Your task to perform on an android device: Find coffee shops on Maps Image 0: 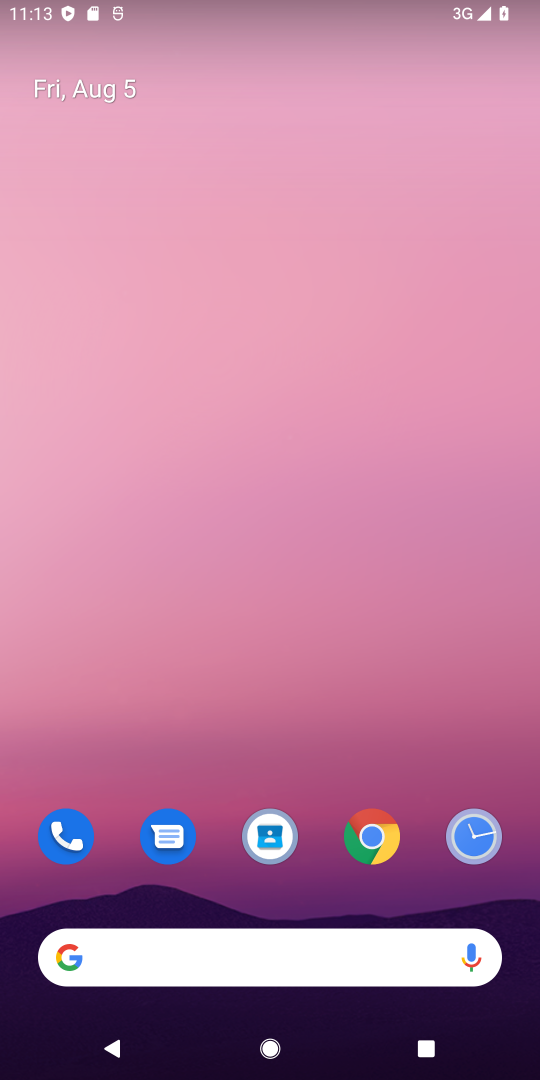
Step 0: drag from (326, 780) to (358, 150)
Your task to perform on an android device: Find coffee shops on Maps Image 1: 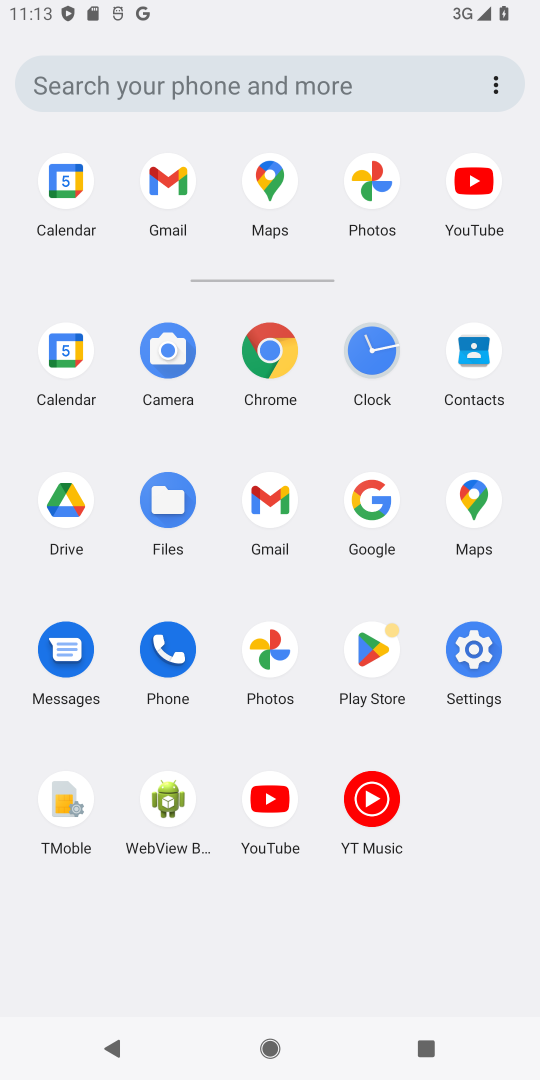
Step 1: click (470, 509)
Your task to perform on an android device: Find coffee shops on Maps Image 2: 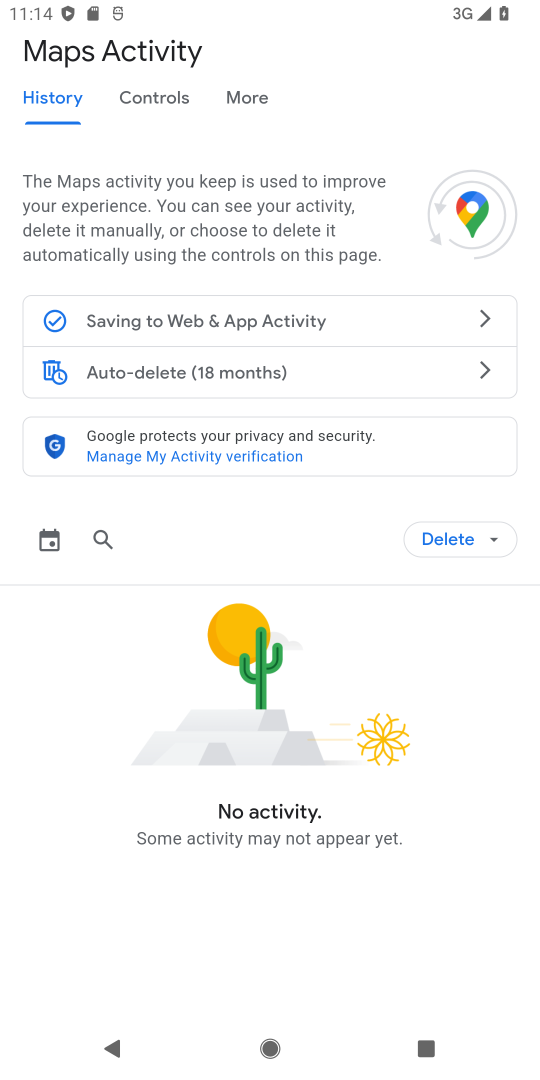
Step 2: press back button
Your task to perform on an android device: Find coffee shops on Maps Image 3: 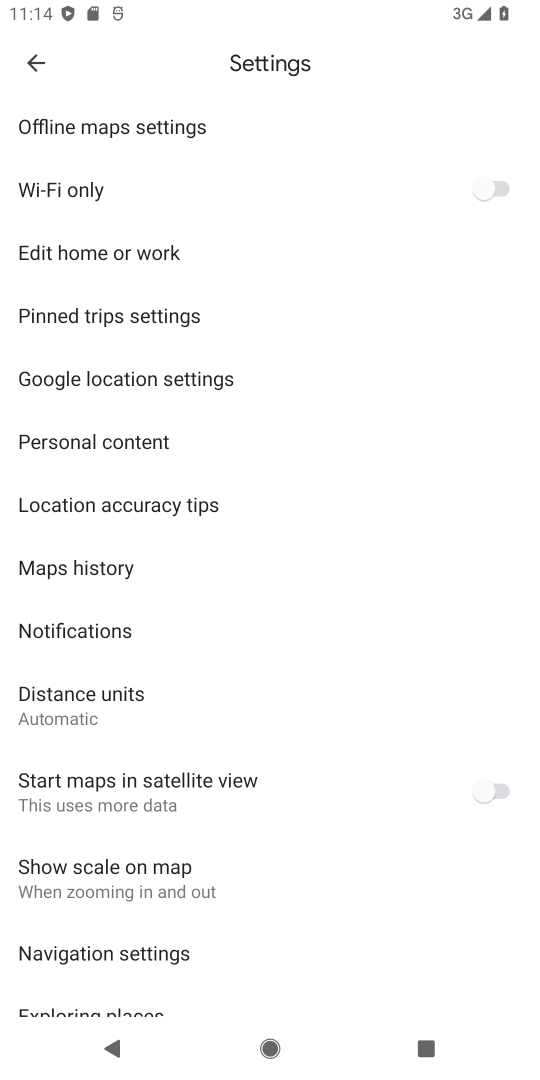
Step 3: press back button
Your task to perform on an android device: Find coffee shops on Maps Image 4: 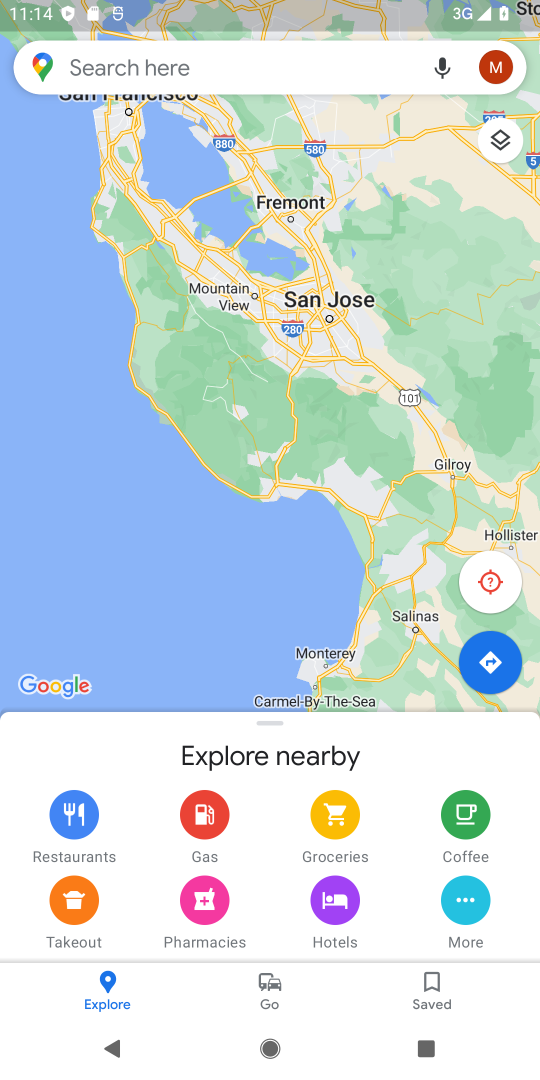
Step 4: click (350, 76)
Your task to perform on an android device: Find coffee shops on Maps Image 5: 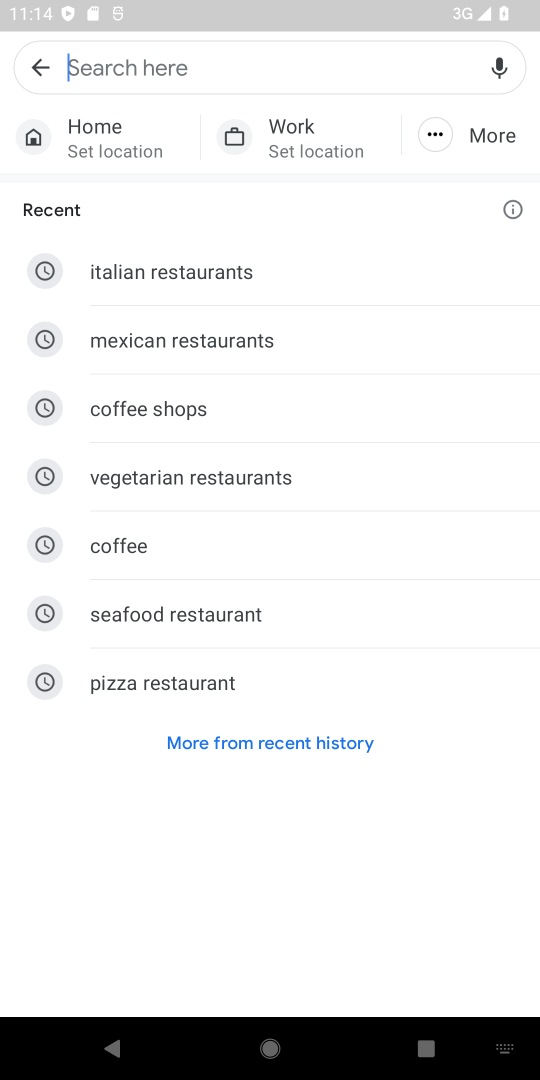
Step 5: type "coffee shops"
Your task to perform on an android device: Find coffee shops on Maps Image 6: 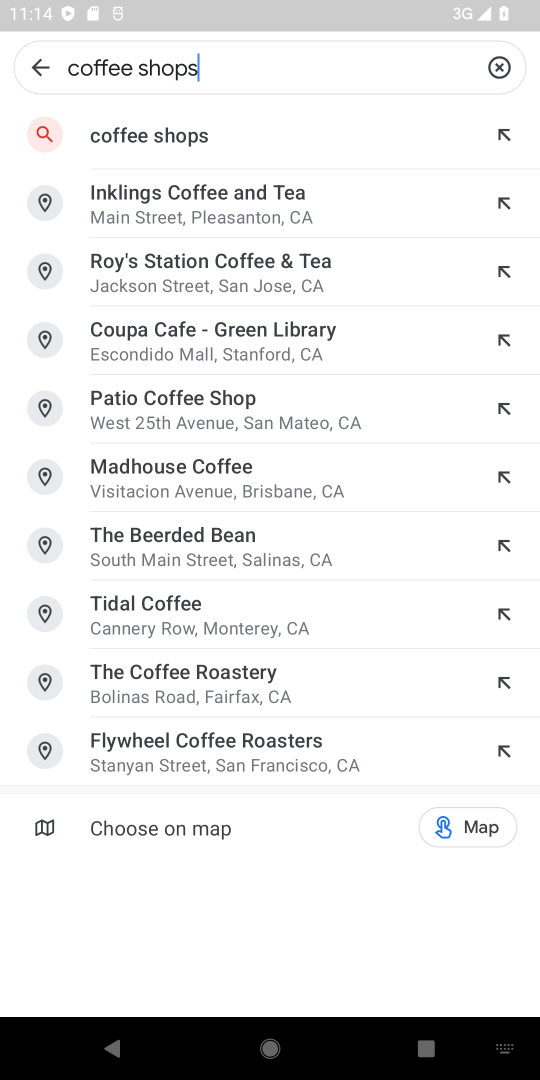
Step 6: click (141, 123)
Your task to perform on an android device: Find coffee shops on Maps Image 7: 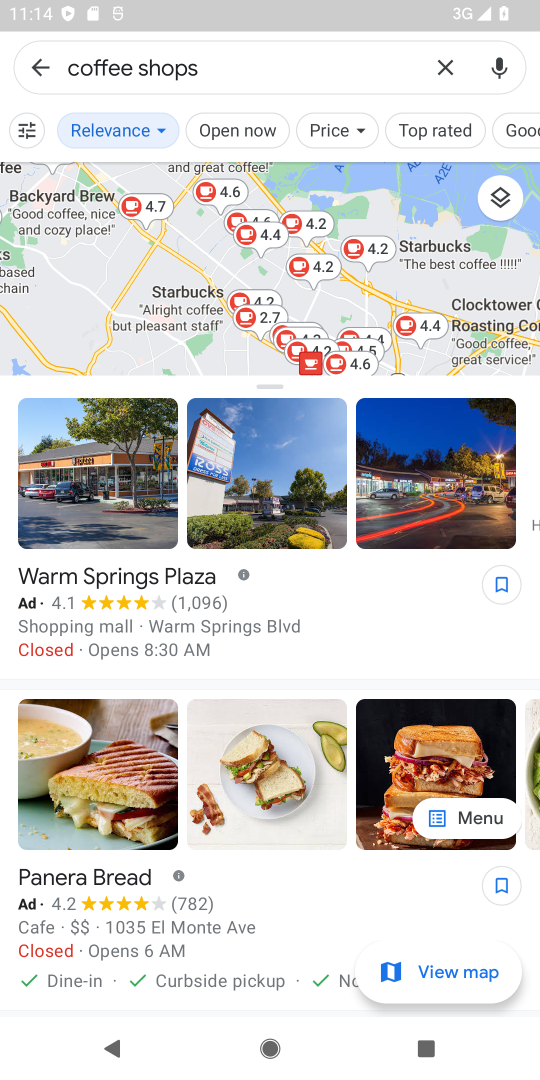
Step 7: task complete